Your task to perform on an android device: Open Youtube and go to "Your channel" Image 0: 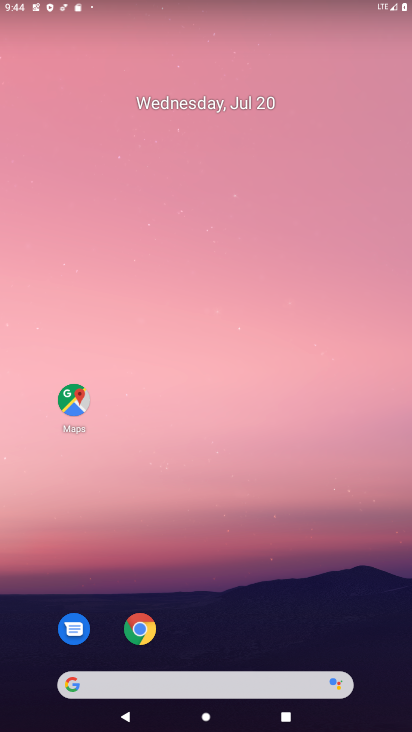
Step 0: press home button
Your task to perform on an android device: Open Youtube and go to "Your channel" Image 1: 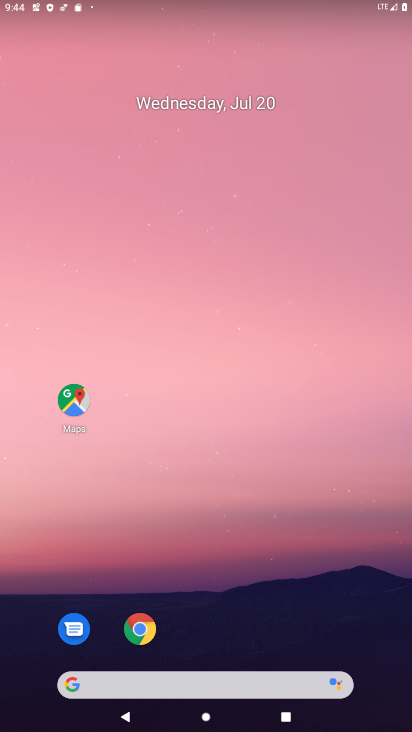
Step 1: drag from (258, 641) to (321, 322)
Your task to perform on an android device: Open Youtube and go to "Your channel" Image 2: 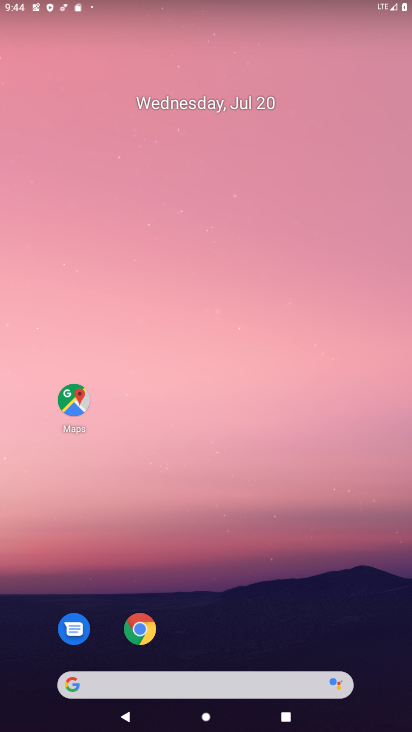
Step 2: drag from (218, 642) to (214, 311)
Your task to perform on an android device: Open Youtube and go to "Your channel" Image 3: 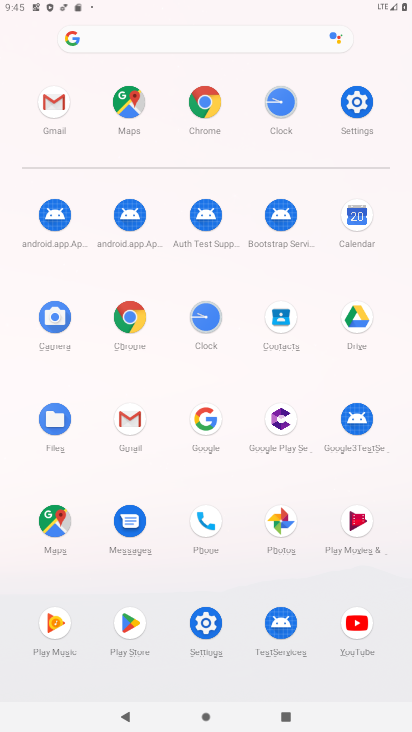
Step 3: click (354, 612)
Your task to perform on an android device: Open Youtube and go to "Your channel" Image 4: 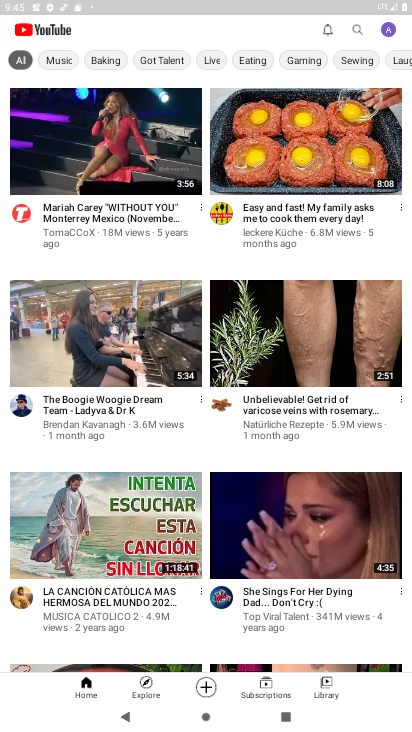
Step 4: click (397, 27)
Your task to perform on an android device: Open Youtube and go to "Your channel" Image 5: 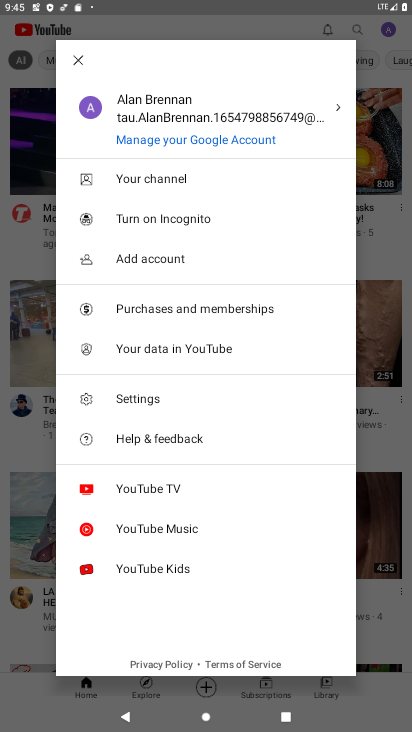
Step 5: click (176, 177)
Your task to perform on an android device: Open Youtube and go to "Your channel" Image 6: 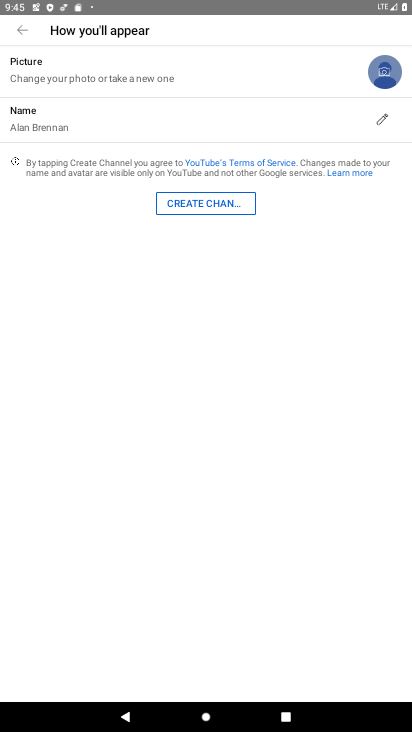
Step 6: task complete